Your task to perform on an android device: turn pop-ups on in chrome Image 0: 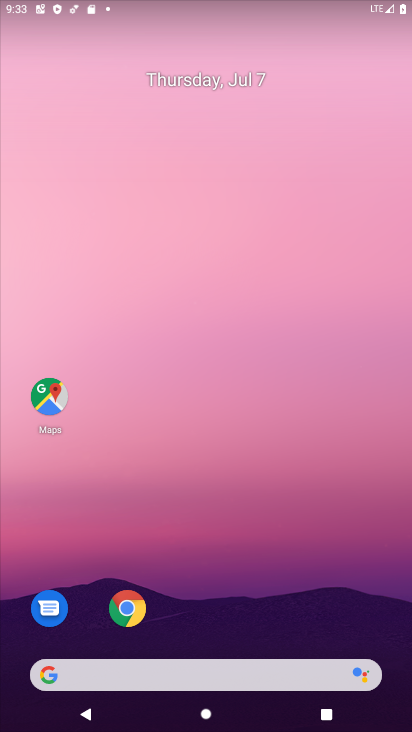
Step 0: click (125, 609)
Your task to perform on an android device: turn pop-ups on in chrome Image 1: 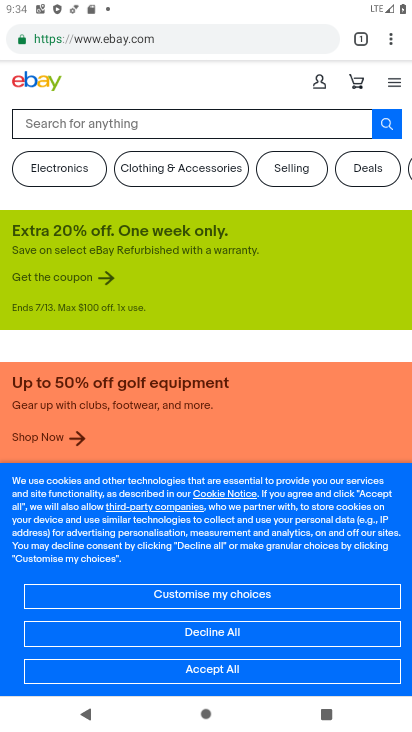
Step 1: click (382, 42)
Your task to perform on an android device: turn pop-ups on in chrome Image 2: 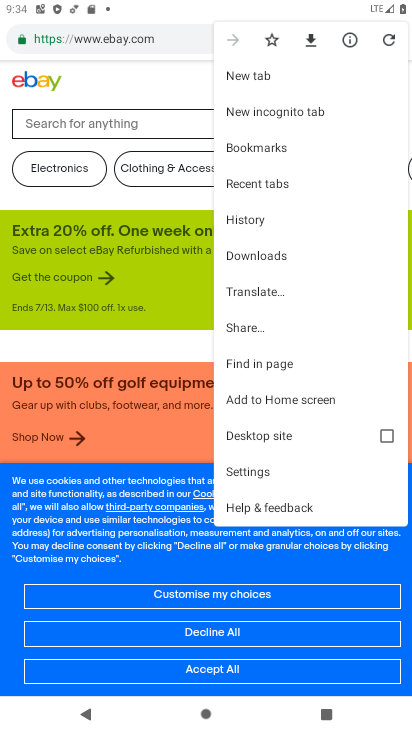
Step 2: click (254, 466)
Your task to perform on an android device: turn pop-ups on in chrome Image 3: 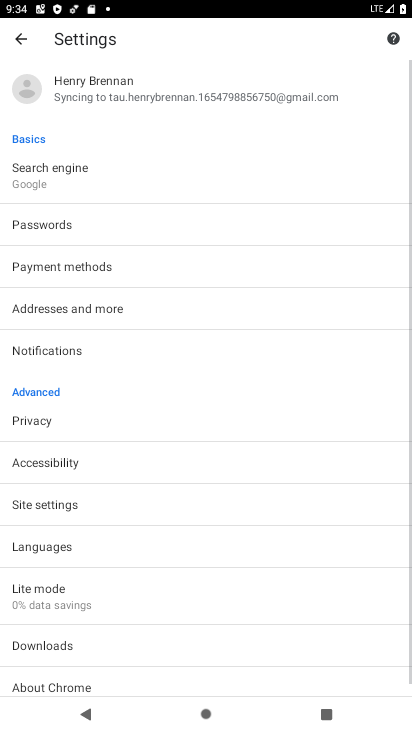
Step 3: click (64, 510)
Your task to perform on an android device: turn pop-ups on in chrome Image 4: 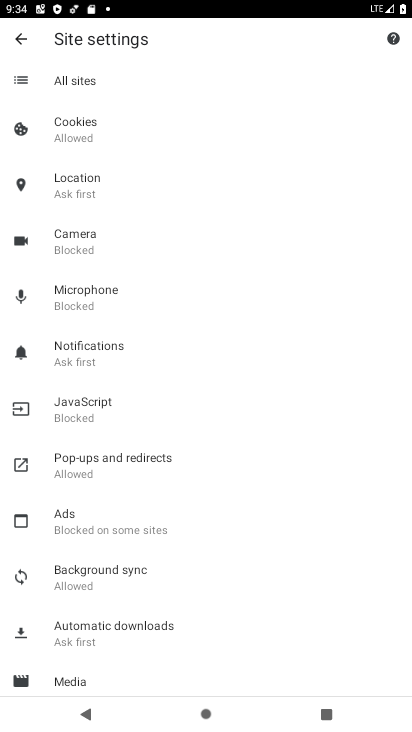
Step 4: click (114, 459)
Your task to perform on an android device: turn pop-ups on in chrome Image 5: 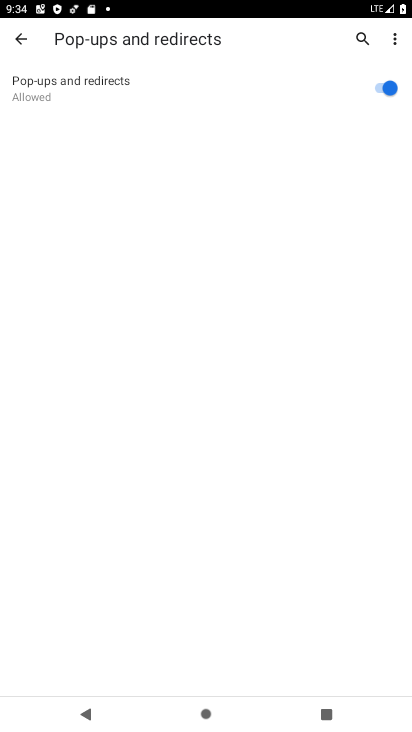
Step 5: task complete